Your task to perform on an android device: open the mobile data screen to see how much data has been used Image 0: 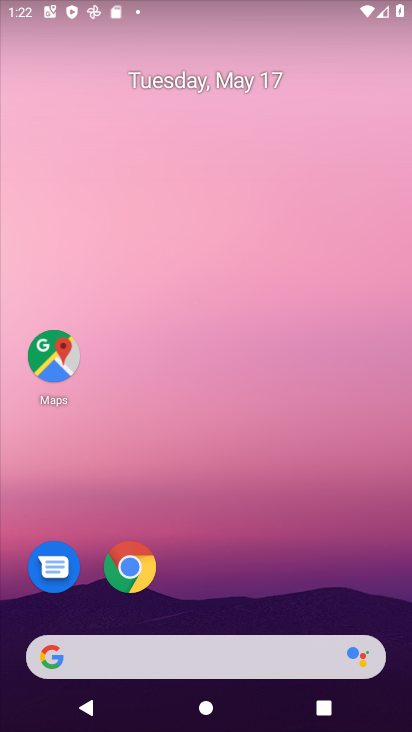
Step 0: drag from (390, 623) to (335, 104)
Your task to perform on an android device: open the mobile data screen to see how much data has been used Image 1: 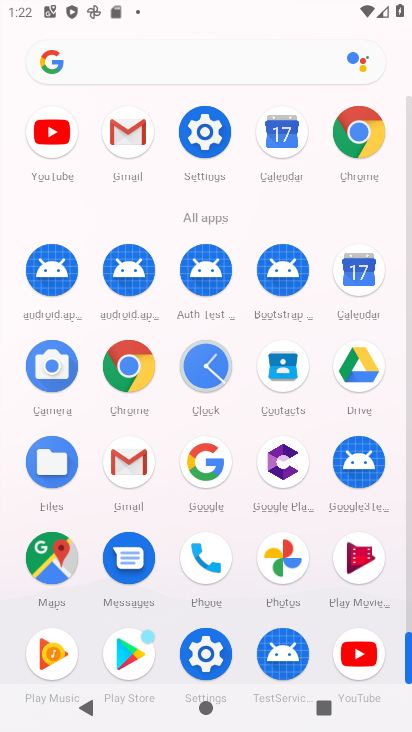
Step 1: click (205, 653)
Your task to perform on an android device: open the mobile data screen to see how much data has been used Image 2: 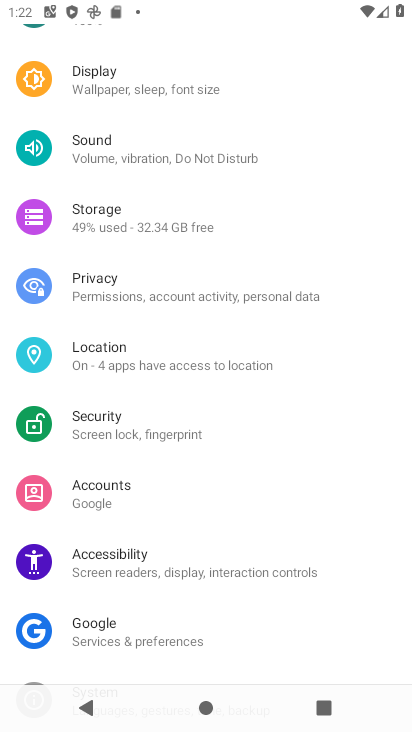
Step 2: drag from (330, 154) to (365, 429)
Your task to perform on an android device: open the mobile data screen to see how much data has been used Image 3: 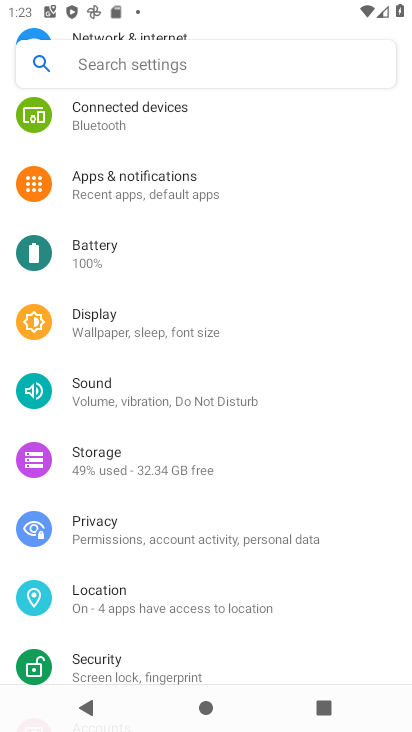
Step 3: click (316, 63)
Your task to perform on an android device: open the mobile data screen to see how much data has been used Image 4: 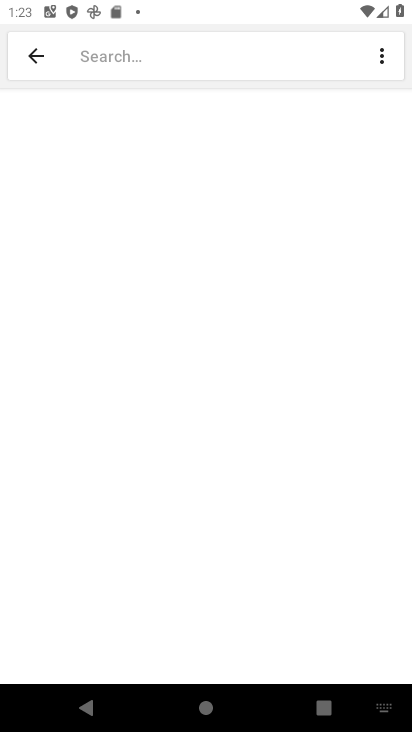
Step 4: press back button
Your task to perform on an android device: open the mobile data screen to see how much data has been used Image 5: 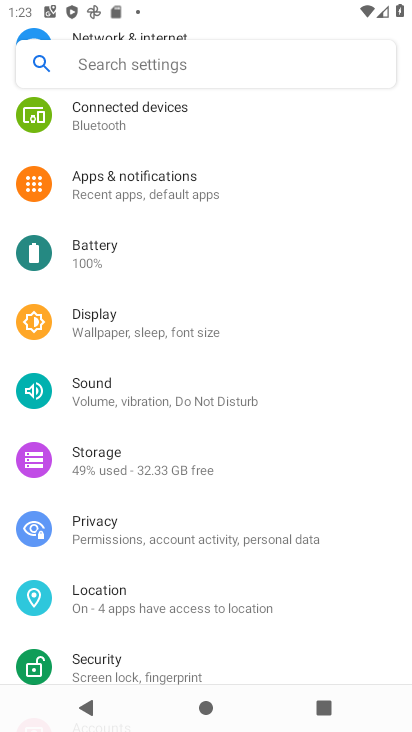
Step 5: drag from (274, 172) to (294, 530)
Your task to perform on an android device: open the mobile data screen to see how much data has been used Image 6: 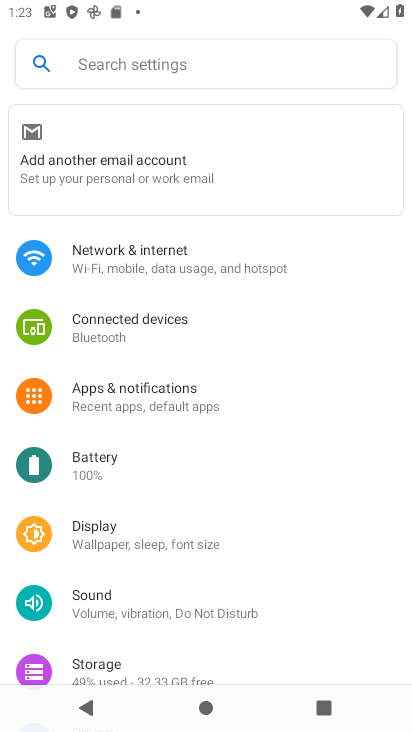
Step 6: click (123, 251)
Your task to perform on an android device: open the mobile data screen to see how much data has been used Image 7: 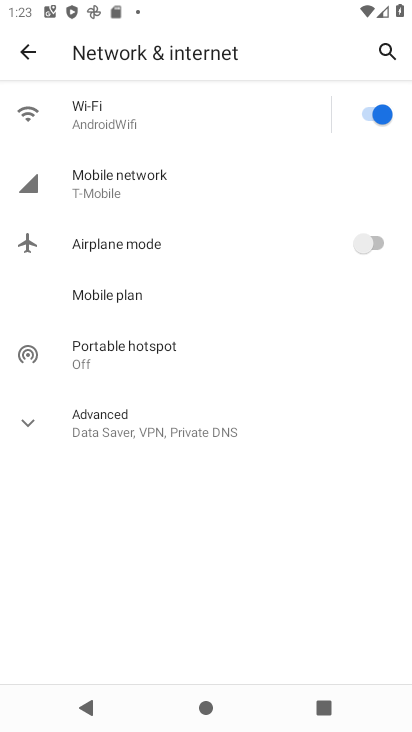
Step 7: click (121, 168)
Your task to perform on an android device: open the mobile data screen to see how much data has been used Image 8: 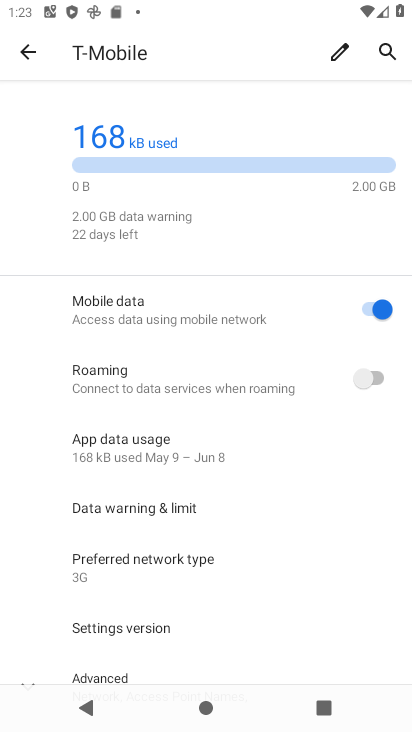
Step 8: task complete